Your task to perform on an android device: Go to battery settings Image 0: 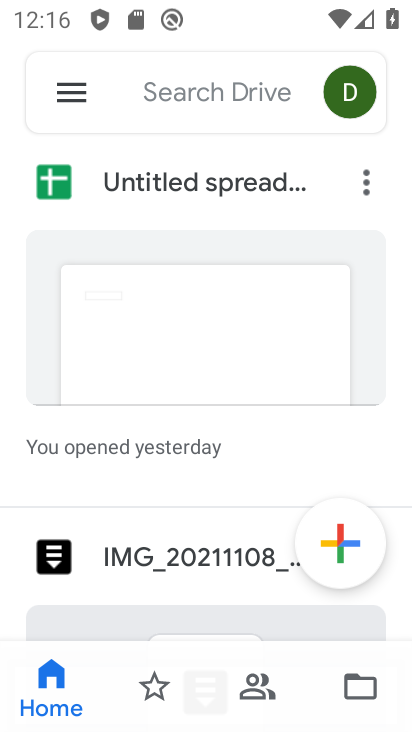
Step 0: press home button
Your task to perform on an android device: Go to battery settings Image 1: 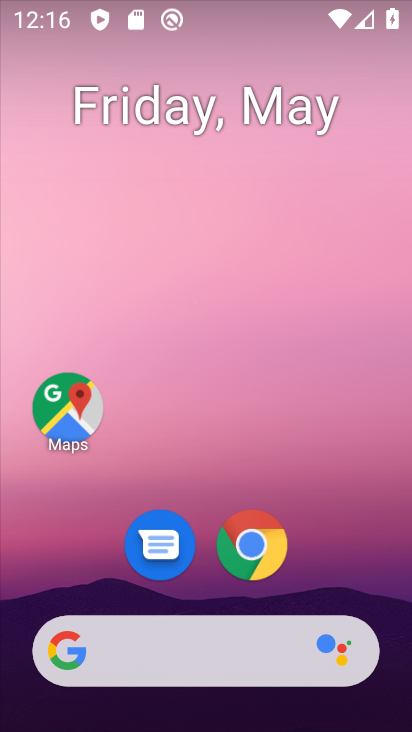
Step 1: drag from (330, 564) to (304, 181)
Your task to perform on an android device: Go to battery settings Image 2: 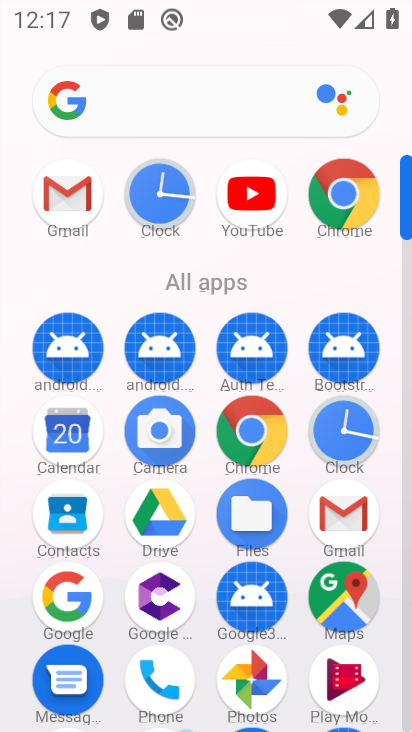
Step 2: drag from (303, 601) to (319, 154)
Your task to perform on an android device: Go to battery settings Image 3: 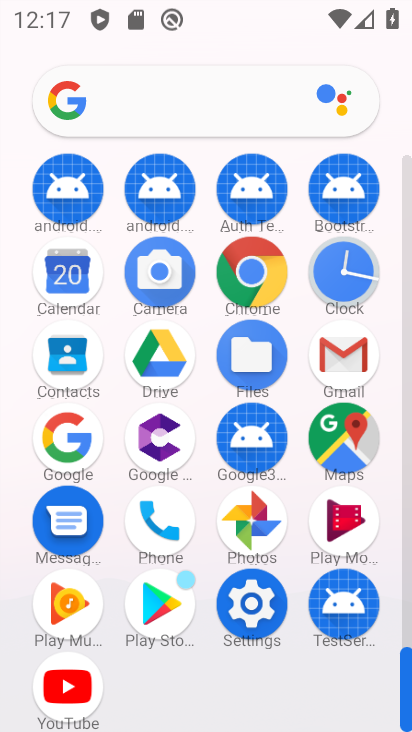
Step 3: click (233, 609)
Your task to perform on an android device: Go to battery settings Image 4: 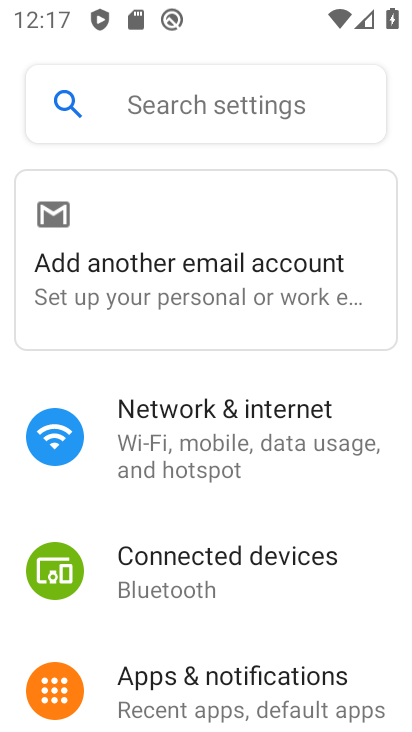
Step 4: drag from (263, 591) to (265, 241)
Your task to perform on an android device: Go to battery settings Image 5: 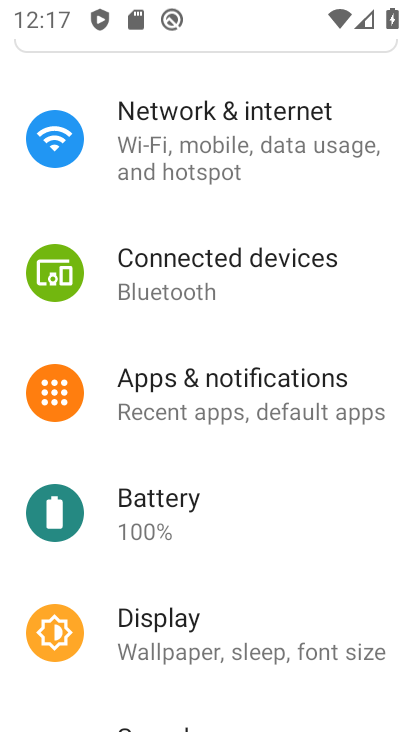
Step 5: click (258, 495)
Your task to perform on an android device: Go to battery settings Image 6: 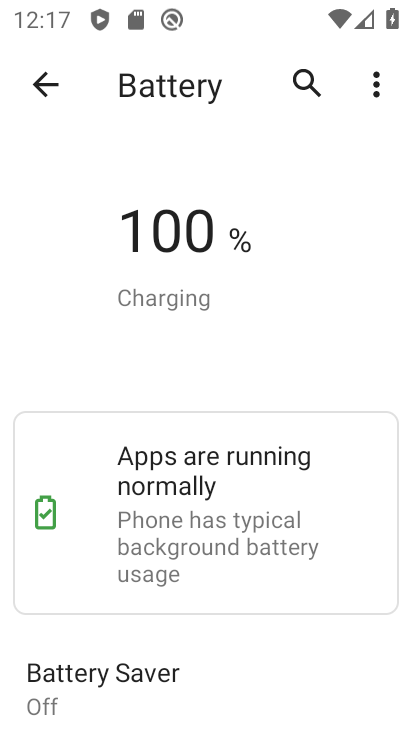
Step 6: task complete